Your task to perform on an android device: turn off notifications settings in the gmail app Image 0: 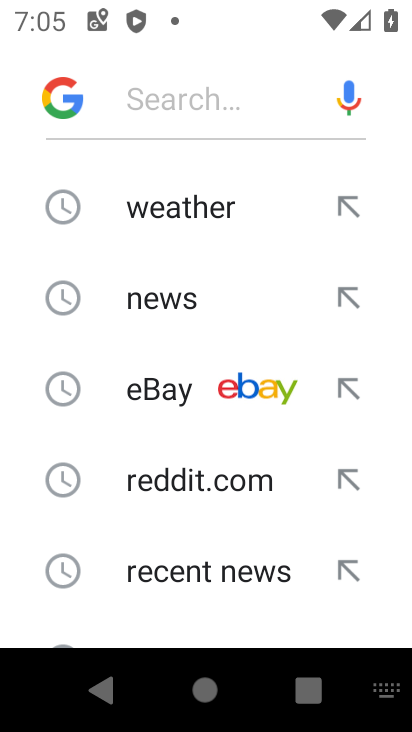
Step 0: press home button
Your task to perform on an android device: turn off notifications settings in the gmail app Image 1: 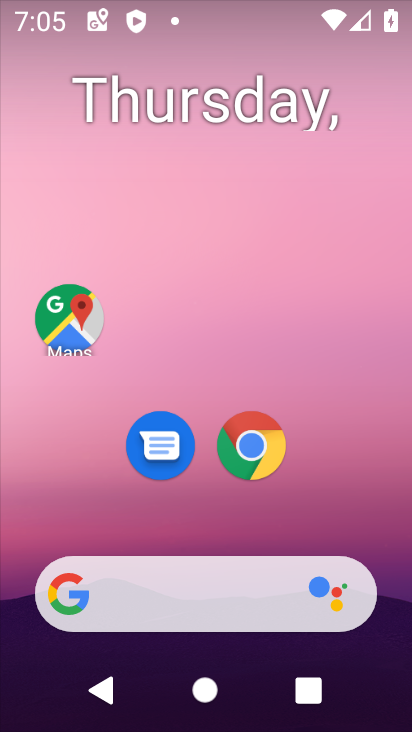
Step 1: drag from (318, 485) to (243, 77)
Your task to perform on an android device: turn off notifications settings in the gmail app Image 2: 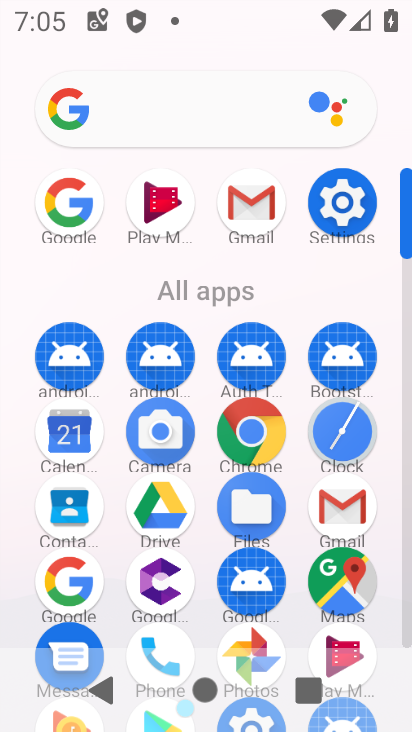
Step 2: click (247, 219)
Your task to perform on an android device: turn off notifications settings in the gmail app Image 3: 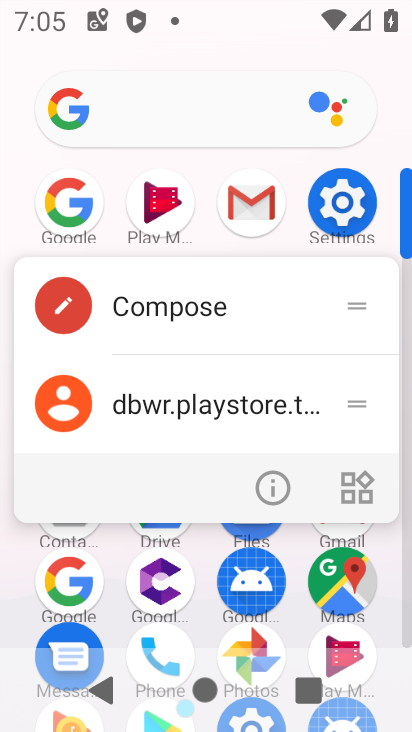
Step 3: click (252, 197)
Your task to perform on an android device: turn off notifications settings in the gmail app Image 4: 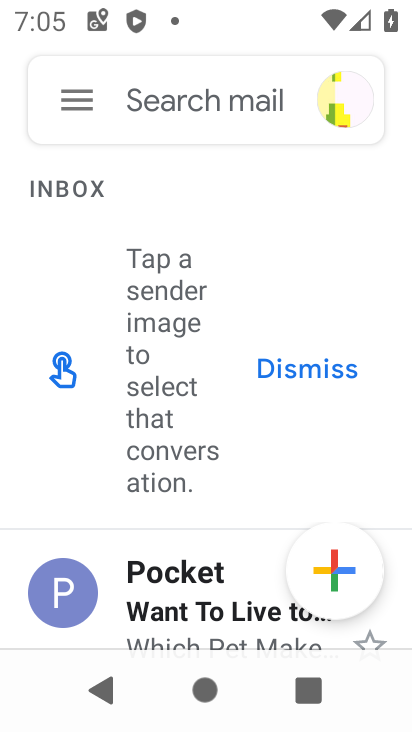
Step 4: click (70, 82)
Your task to perform on an android device: turn off notifications settings in the gmail app Image 5: 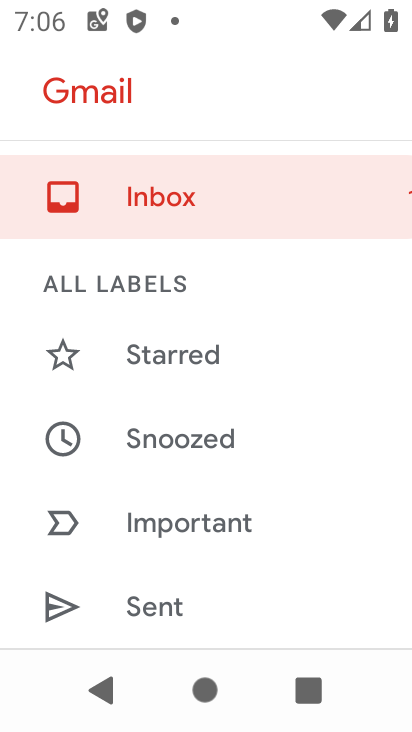
Step 5: drag from (255, 575) to (273, 237)
Your task to perform on an android device: turn off notifications settings in the gmail app Image 6: 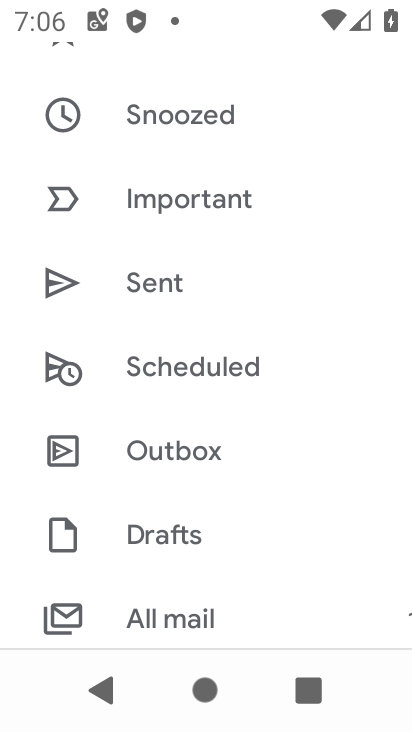
Step 6: drag from (275, 544) to (211, 202)
Your task to perform on an android device: turn off notifications settings in the gmail app Image 7: 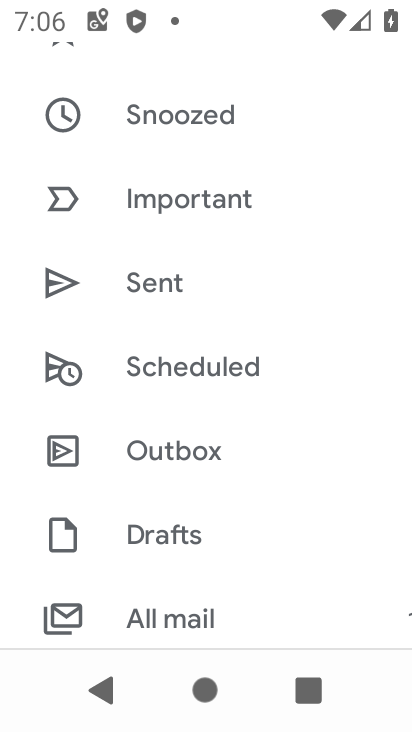
Step 7: drag from (205, 569) to (257, 240)
Your task to perform on an android device: turn off notifications settings in the gmail app Image 8: 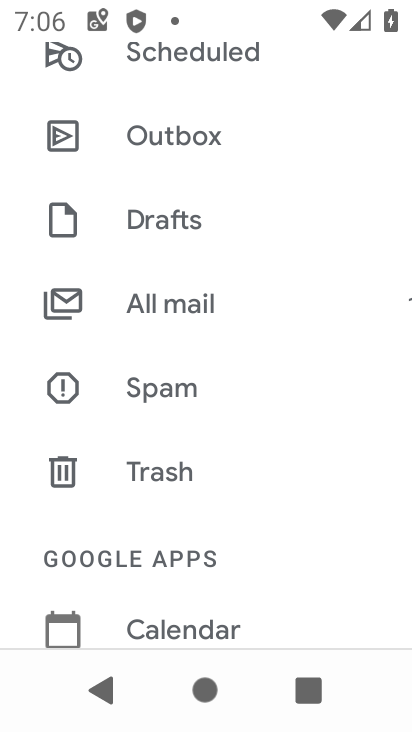
Step 8: drag from (193, 485) to (205, 253)
Your task to perform on an android device: turn off notifications settings in the gmail app Image 9: 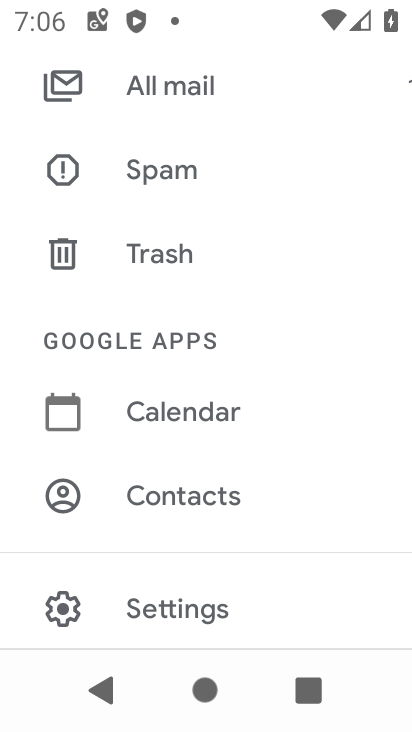
Step 9: drag from (228, 309) to (265, 598)
Your task to perform on an android device: turn off notifications settings in the gmail app Image 10: 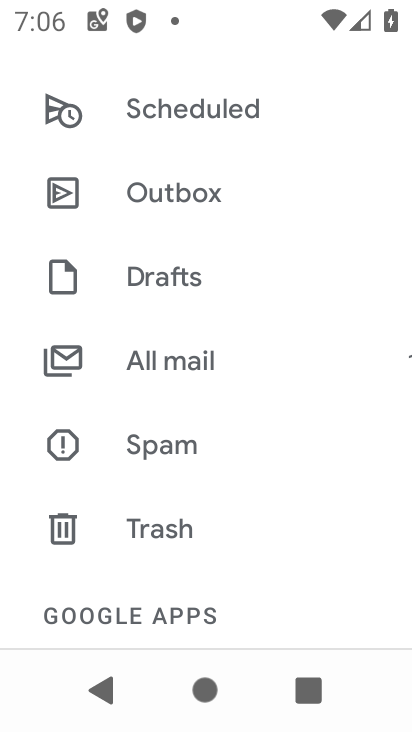
Step 10: drag from (238, 594) to (200, 334)
Your task to perform on an android device: turn off notifications settings in the gmail app Image 11: 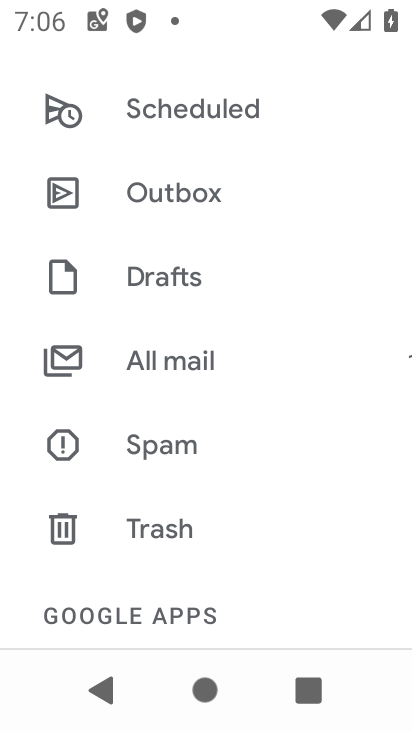
Step 11: drag from (240, 266) to (217, 599)
Your task to perform on an android device: turn off notifications settings in the gmail app Image 12: 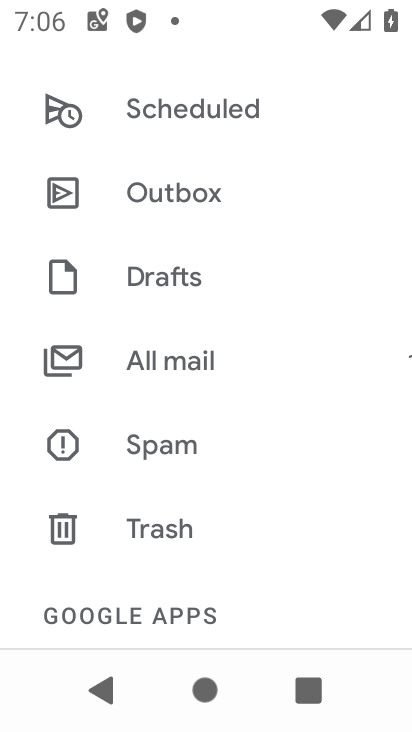
Step 12: drag from (219, 597) to (224, 296)
Your task to perform on an android device: turn off notifications settings in the gmail app Image 13: 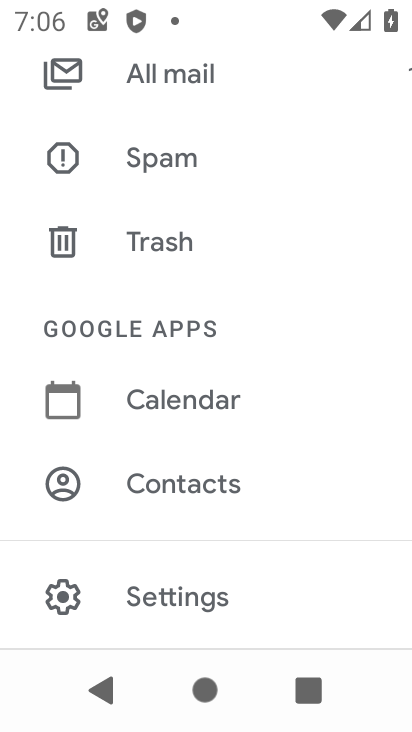
Step 13: click (142, 600)
Your task to perform on an android device: turn off notifications settings in the gmail app Image 14: 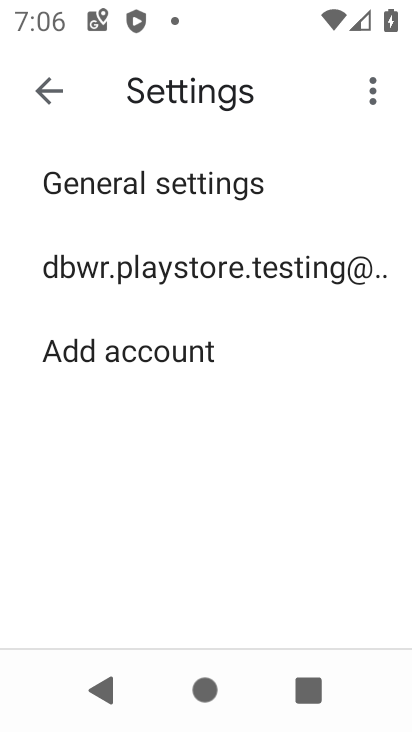
Step 14: click (170, 278)
Your task to perform on an android device: turn off notifications settings in the gmail app Image 15: 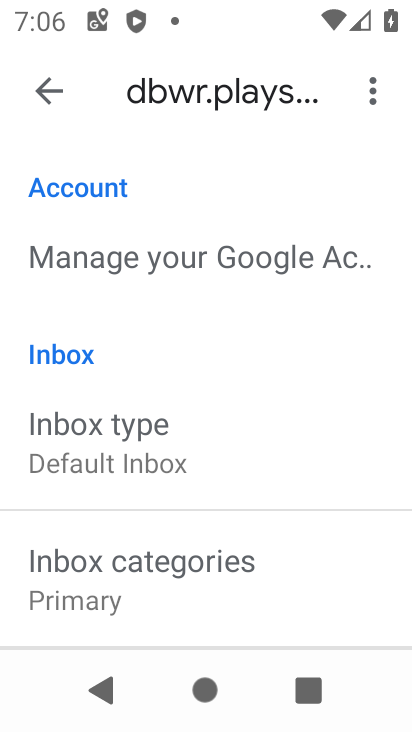
Step 15: drag from (125, 604) to (160, 321)
Your task to perform on an android device: turn off notifications settings in the gmail app Image 16: 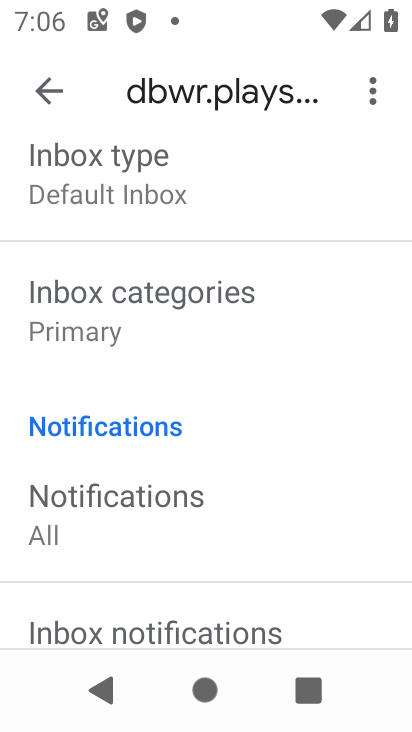
Step 16: click (97, 516)
Your task to perform on an android device: turn off notifications settings in the gmail app Image 17: 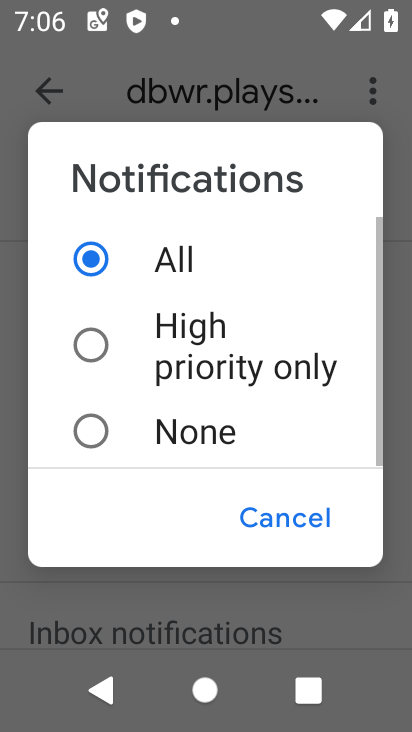
Step 17: click (97, 433)
Your task to perform on an android device: turn off notifications settings in the gmail app Image 18: 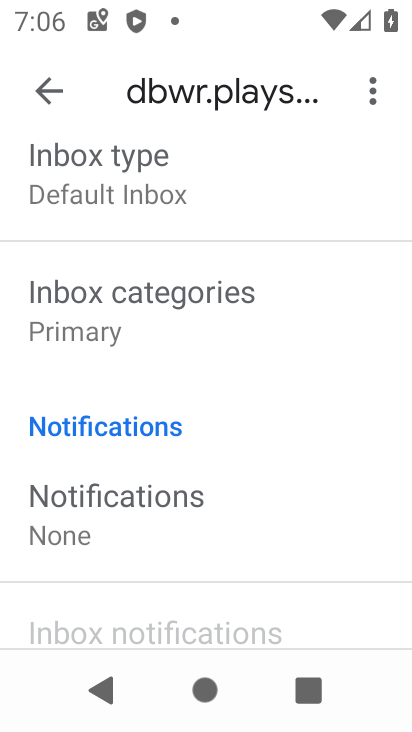
Step 18: task complete